Your task to perform on an android device: create a new album in the google photos Image 0: 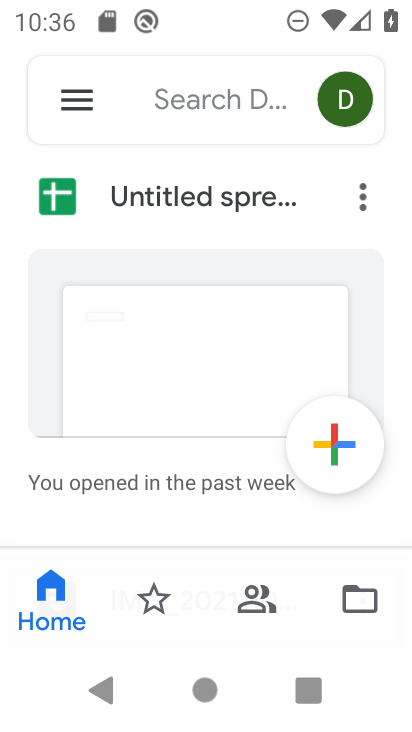
Step 0: press home button
Your task to perform on an android device: create a new album in the google photos Image 1: 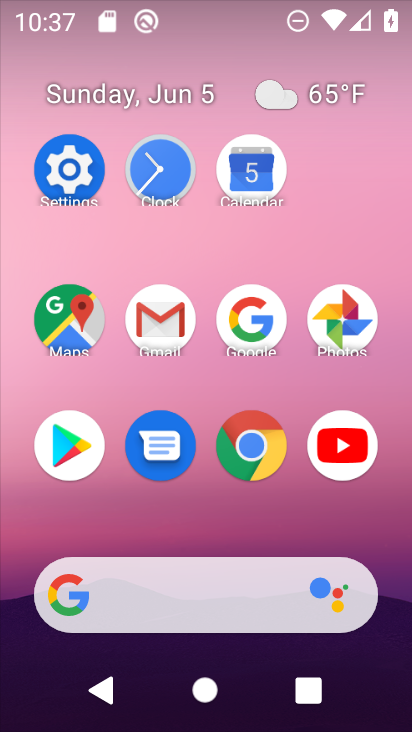
Step 1: click (341, 329)
Your task to perform on an android device: create a new album in the google photos Image 2: 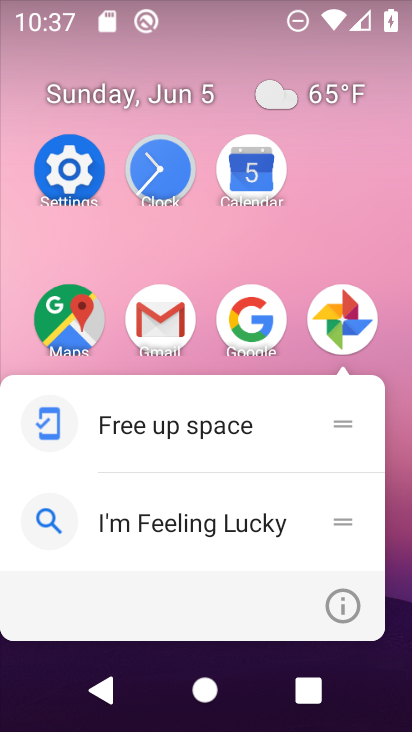
Step 2: click (344, 303)
Your task to perform on an android device: create a new album in the google photos Image 3: 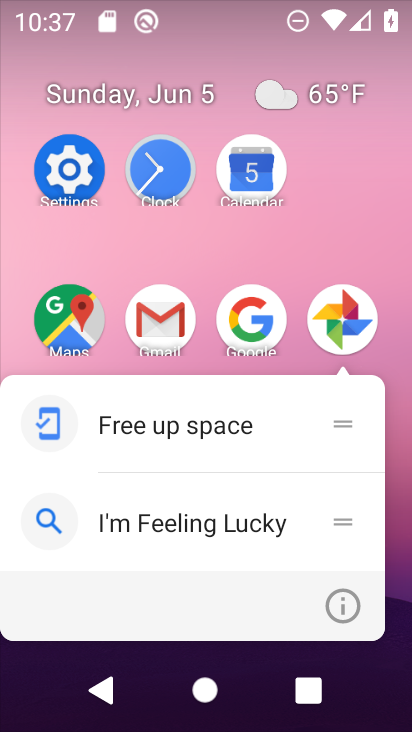
Step 3: click (344, 302)
Your task to perform on an android device: create a new album in the google photos Image 4: 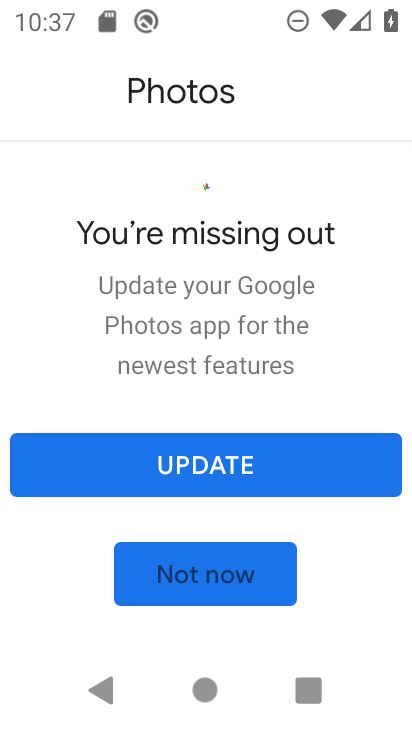
Step 4: click (259, 474)
Your task to perform on an android device: create a new album in the google photos Image 5: 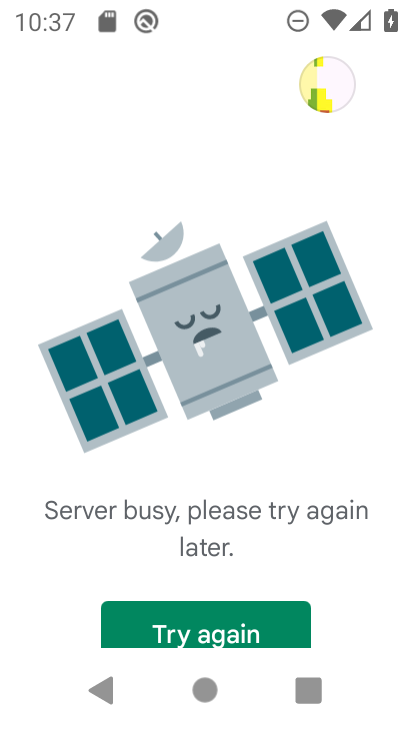
Step 5: click (226, 638)
Your task to perform on an android device: create a new album in the google photos Image 6: 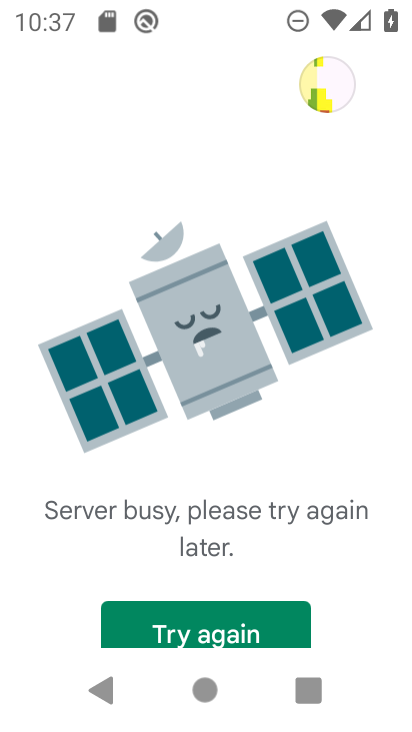
Step 6: press home button
Your task to perform on an android device: create a new album in the google photos Image 7: 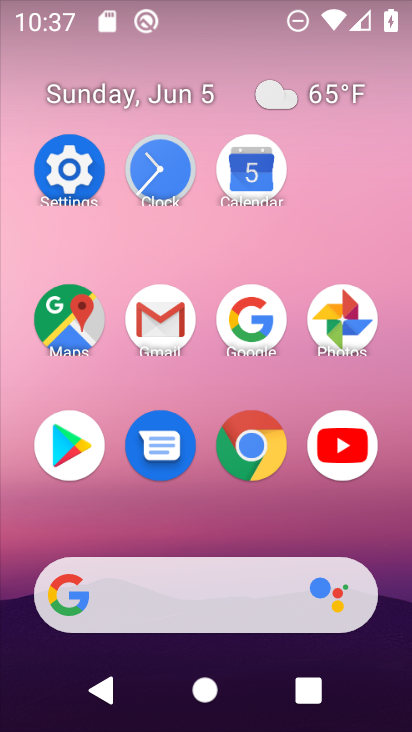
Step 7: click (364, 323)
Your task to perform on an android device: create a new album in the google photos Image 8: 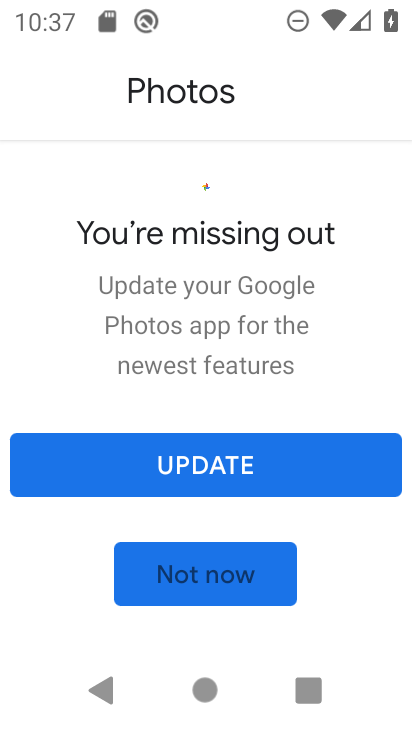
Step 8: click (266, 570)
Your task to perform on an android device: create a new album in the google photos Image 9: 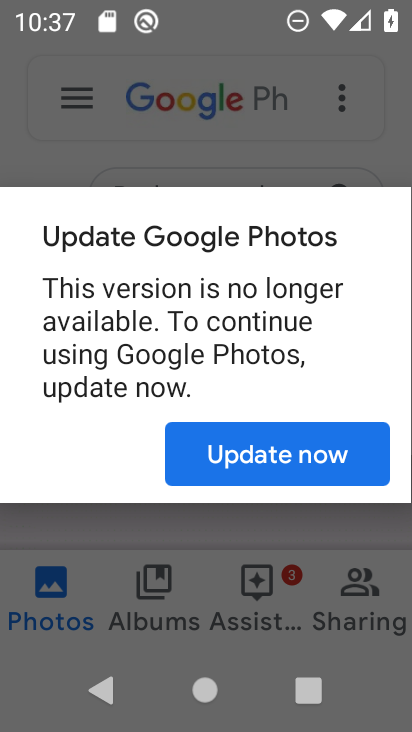
Step 9: click (297, 458)
Your task to perform on an android device: create a new album in the google photos Image 10: 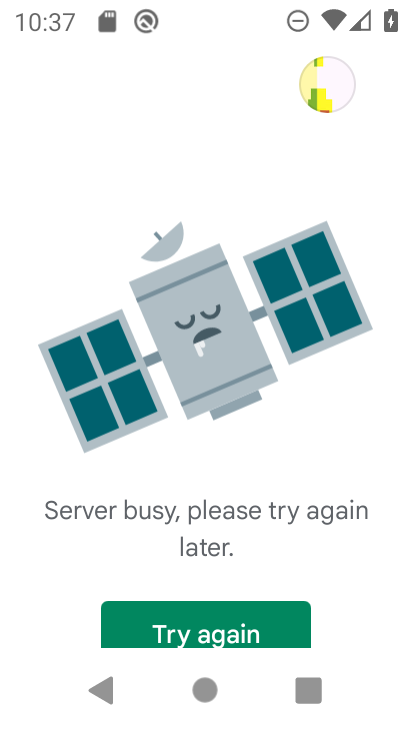
Step 10: task complete